Your task to perform on an android device: toggle show notifications on the lock screen Image 0: 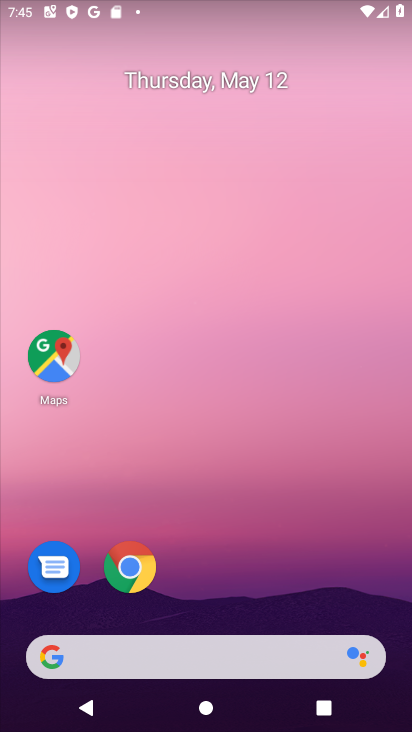
Step 0: drag from (204, 532) to (265, 185)
Your task to perform on an android device: toggle show notifications on the lock screen Image 1: 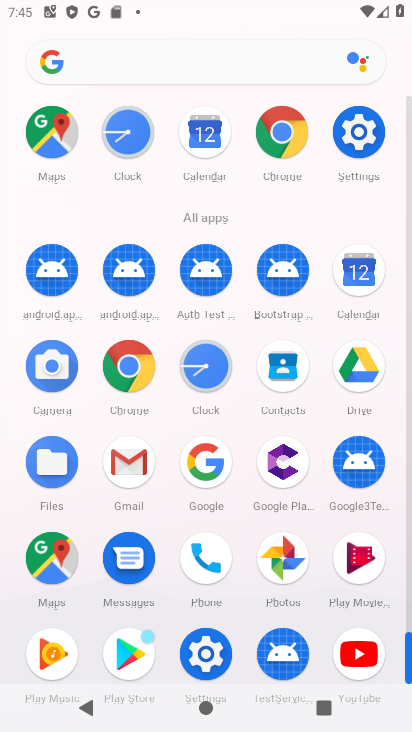
Step 1: click (357, 159)
Your task to perform on an android device: toggle show notifications on the lock screen Image 2: 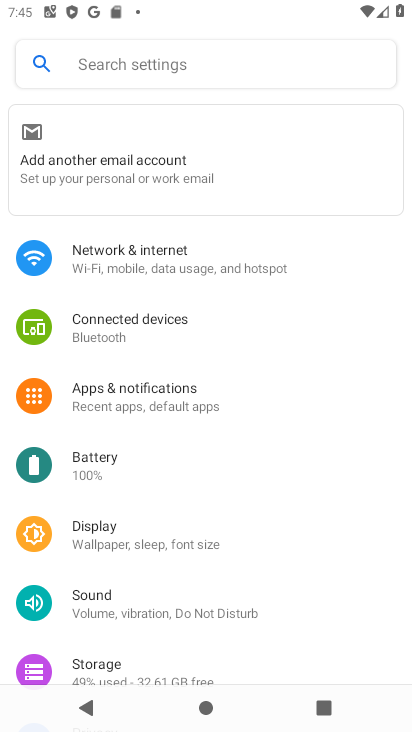
Step 2: click (228, 393)
Your task to perform on an android device: toggle show notifications on the lock screen Image 3: 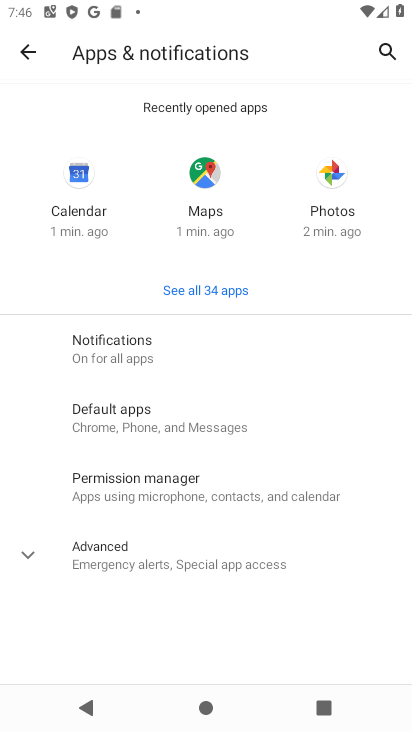
Step 3: click (188, 352)
Your task to perform on an android device: toggle show notifications on the lock screen Image 4: 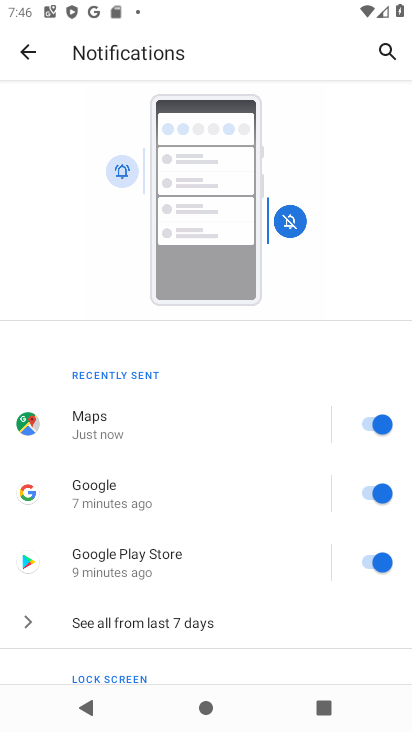
Step 4: drag from (189, 493) to (333, 122)
Your task to perform on an android device: toggle show notifications on the lock screen Image 5: 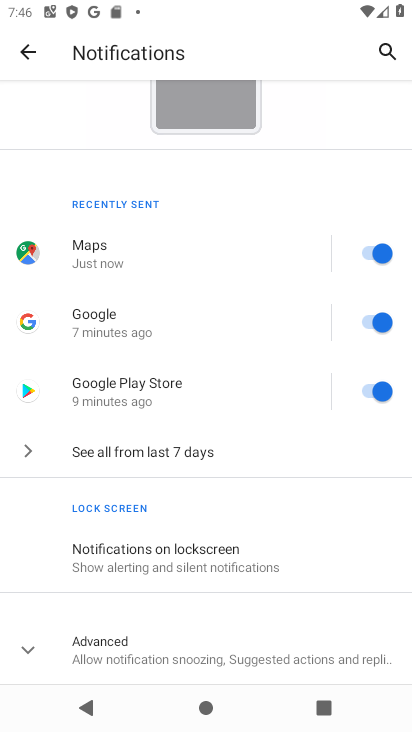
Step 5: click (164, 551)
Your task to perform on an android device: toggle show notifications on the lock screen Image 6: 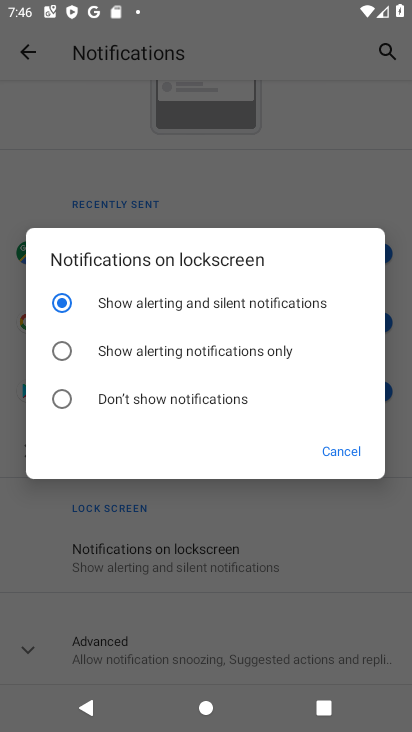
Step 6: click (127, 394)
Your task to perform on an android device: toggle show notifications on the lock screen Image 7: 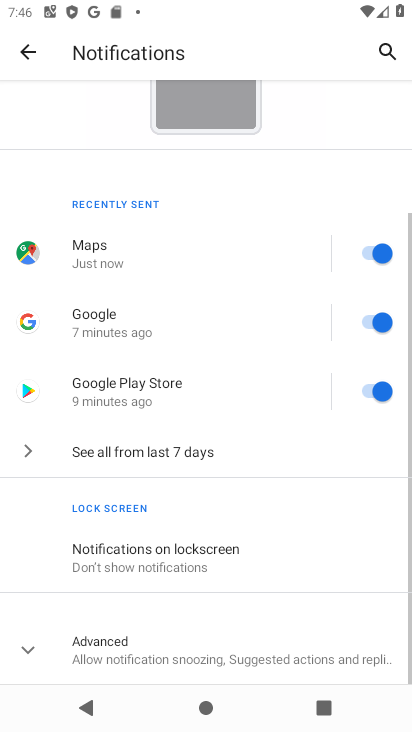
Step 7: task complete